Your task to perform on an android device: Open Maps and search for coffee Image 0: 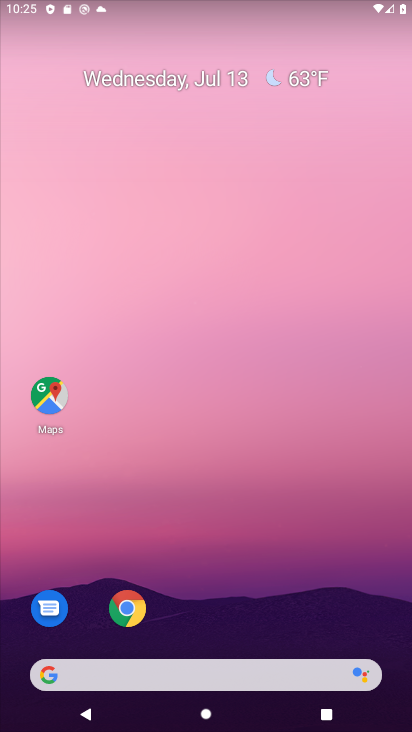
Step 0: click (76, 403)
Your task to perform on an android device: Open Maps and search for coffee Image 1: 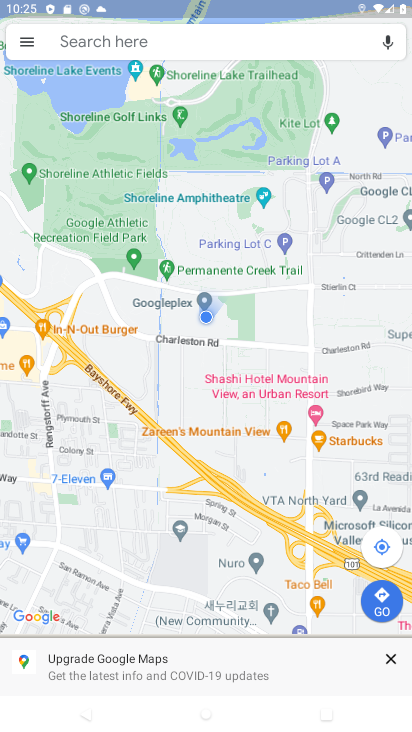
Step 1: click (180, 50)
Your task to perform on an android device: Open Maps and search for coffee Image 2: 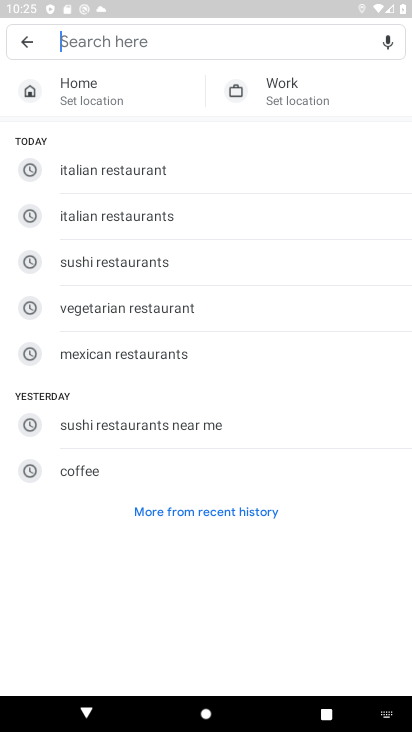
Step 2: type "coffee"
Your task to perform on an android device: Open Maps and search for coffee Image 3: 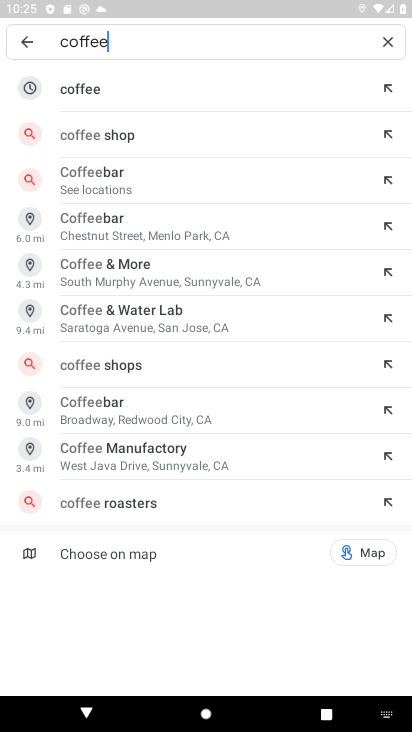
Step 3: click (177, 88)
Your task to perform on an android device: Open Maps and search for coffee Image 4: 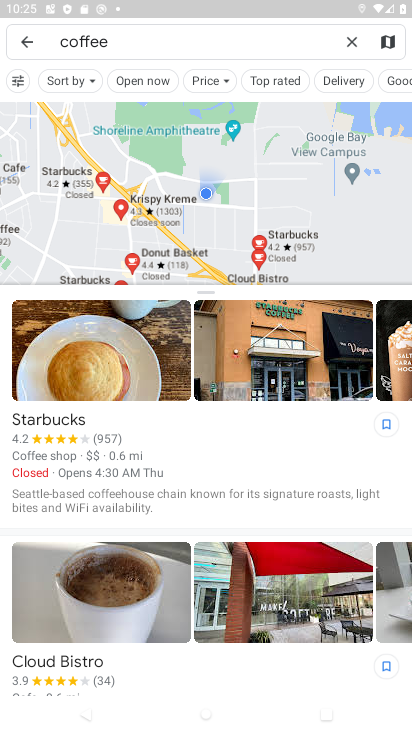
Step 4: task complete